Your task to perform on an android device: set an alarm Image 0: 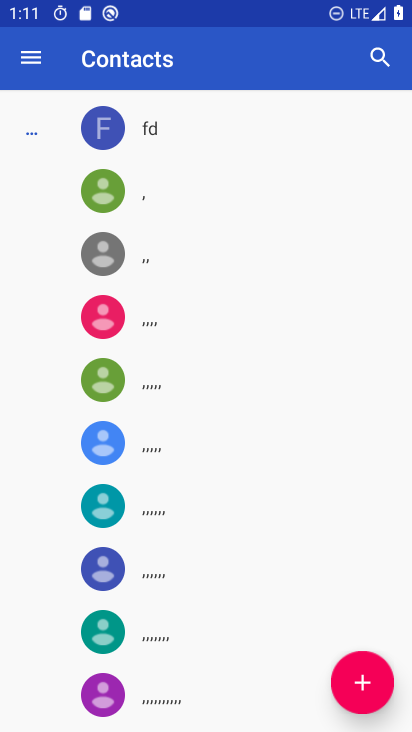
Step 0: press home button
Your task to perform on an android device: set an alarm Image 1: 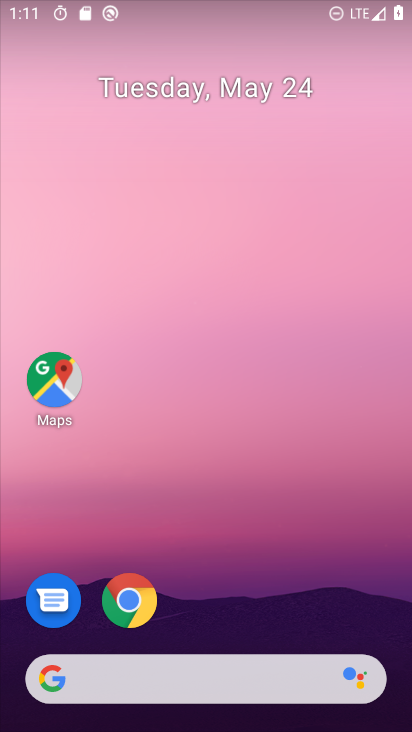
Step 1: drag from (227, 564) to (232, 118)
Your task to perform on an android device: set an alarm Image 2: 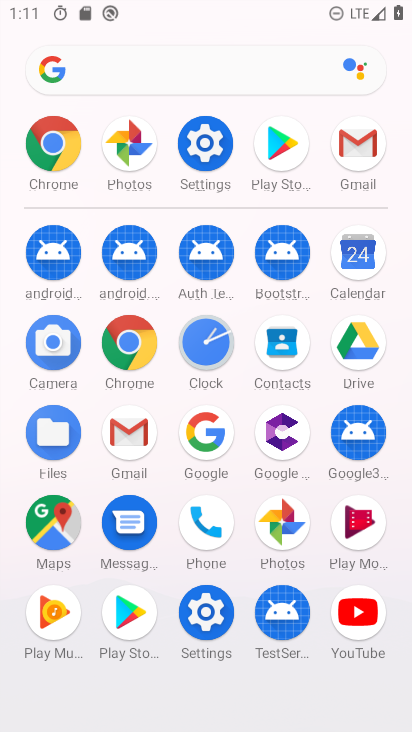
Step 2: click (216, 337)
Your task to perform on an android device: set an alarm Image 3: 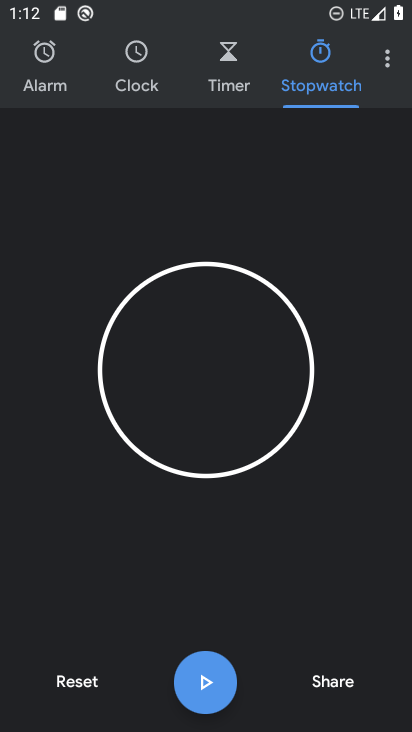
Step 3: click (44, 61)
Your task to perform on an android device: set an alarm Image 4: 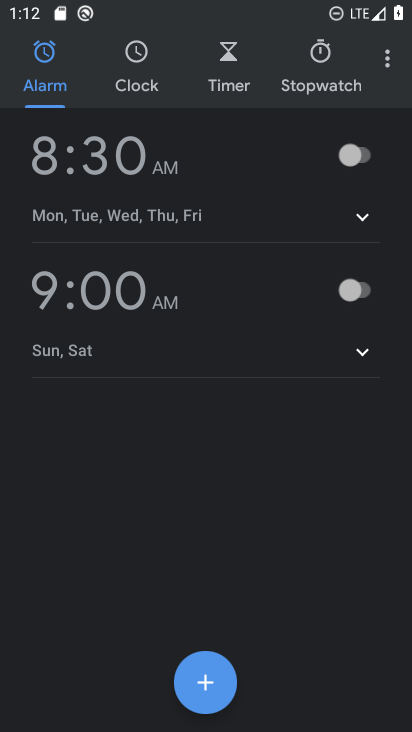
Step 4: click (207, 669)
Your task to perform on an android device: set an alarm Image 5: 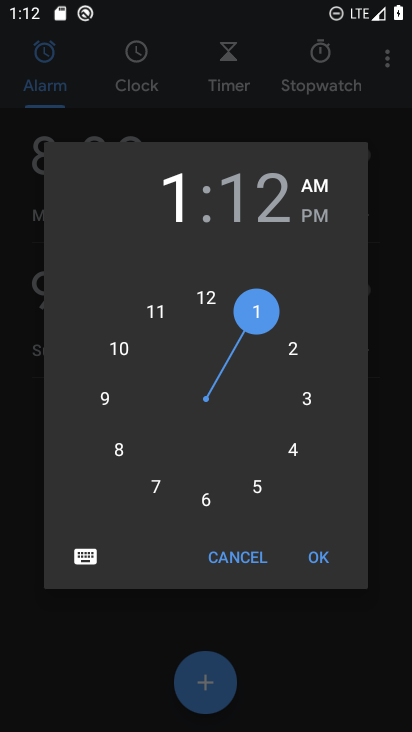
Step 5: click (317, 557)
Your task to perform on an android device: set an alarm Image 6: 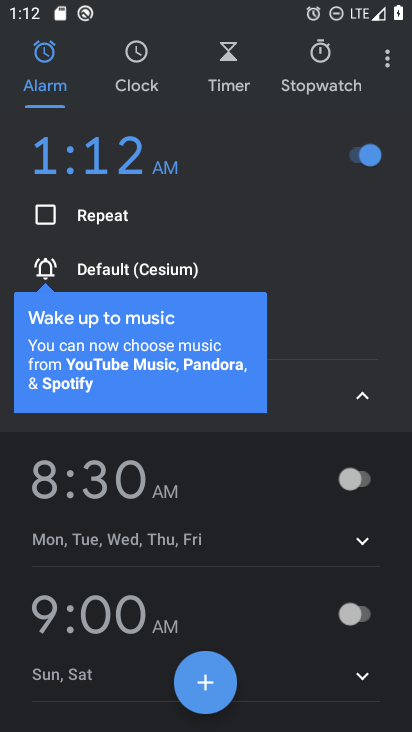
Step 6: task complete